Your task to perform on an android device: Go to ESPN.com Image 0: 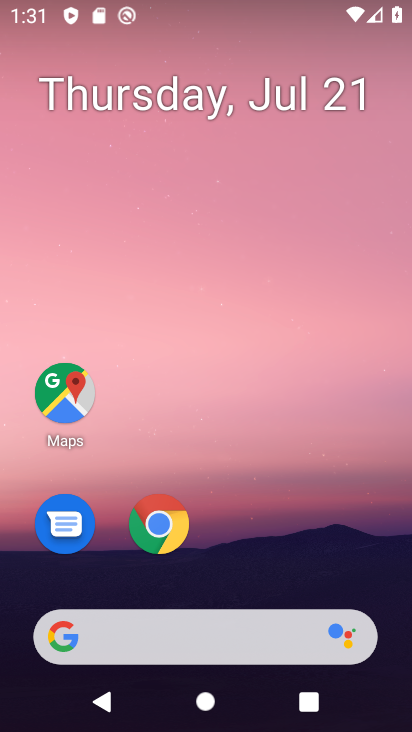
Step 0: click (270, 631)
Your task to perform on an android device: Go to ESPN.com Image 1: 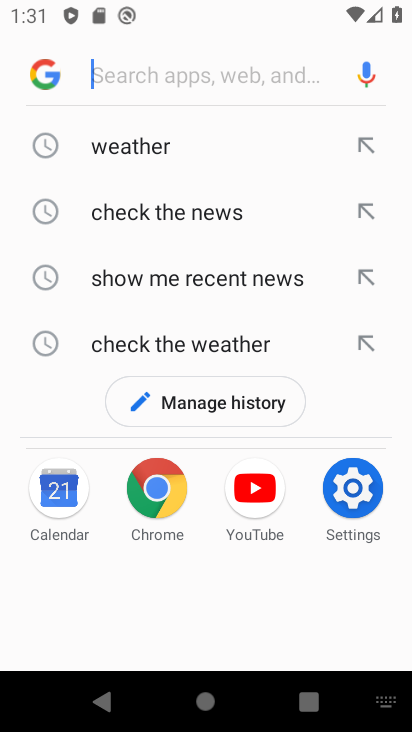
Step 1: type "espn.com"
Your task to perform on an android device: Go to ESPN.com Image 2: 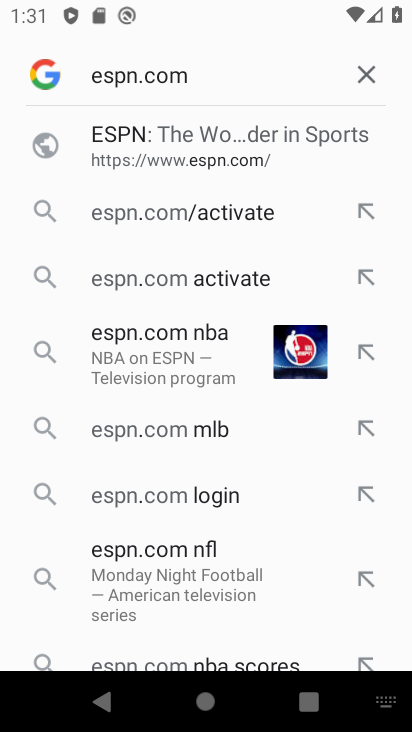
Step 2: click (172, 149)
Your task to perform on an android device: Go to ESPN.com Image 3: 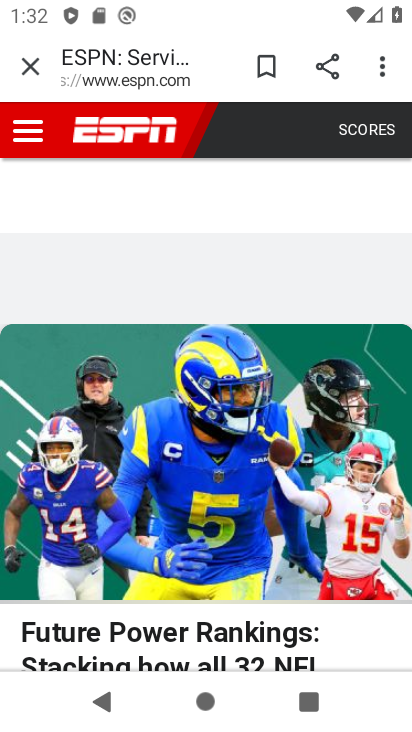
Step 3: task complete